Your task to perform on an android device: open app "Spotify: Music and Podcasts" Image 0: 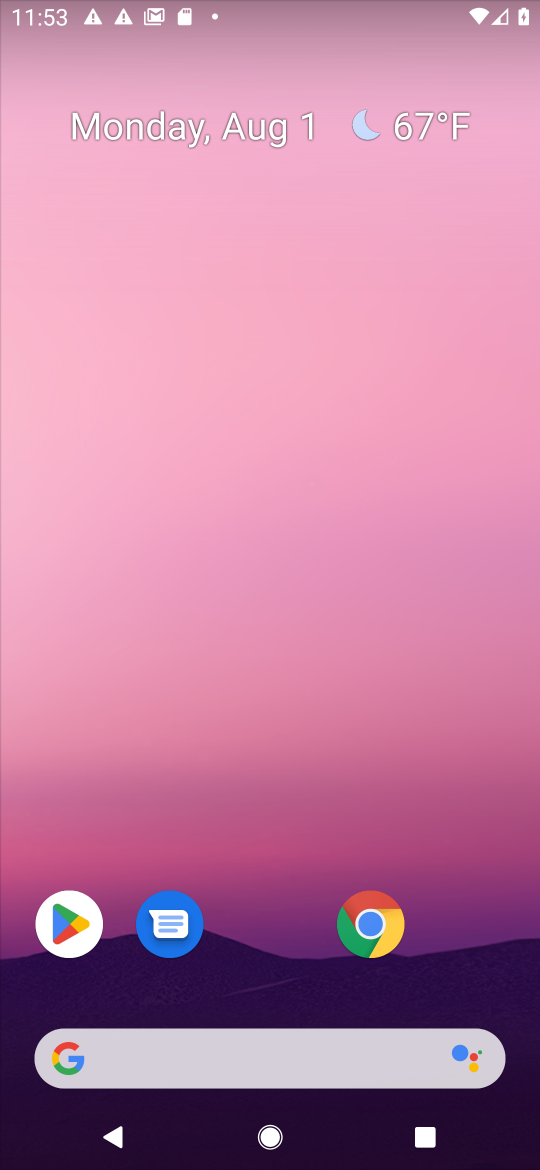
Step 0: click (66, 919)
Your task to perform on an android device: open app "Spotify: Music and Podcasts" Image 1: 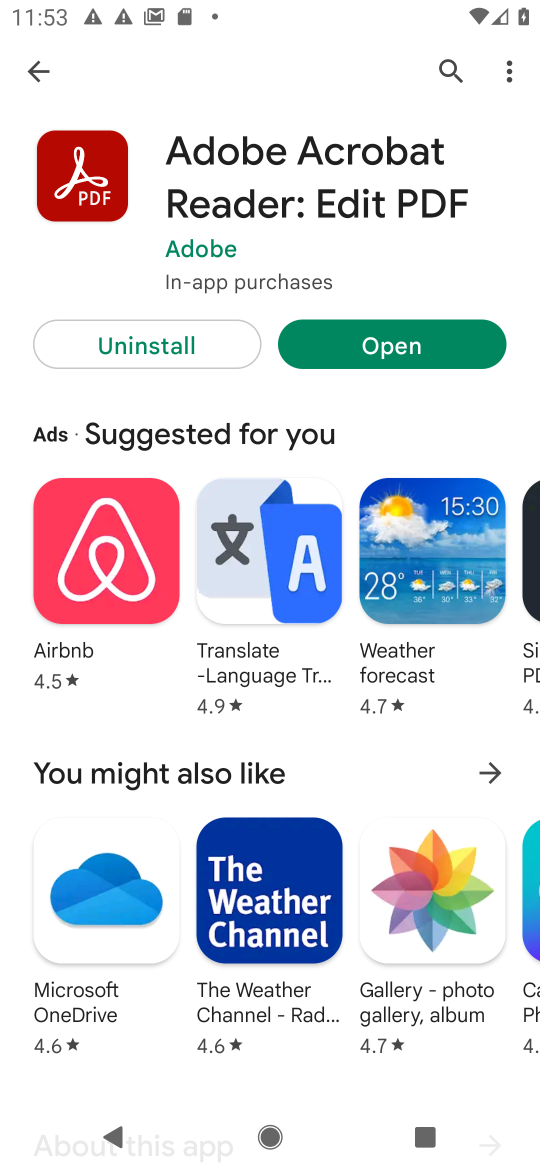
Step 1: click (442, 70)
Your task to perform on an android device: open app "Spotify: Music and Podcasts" Image 2: 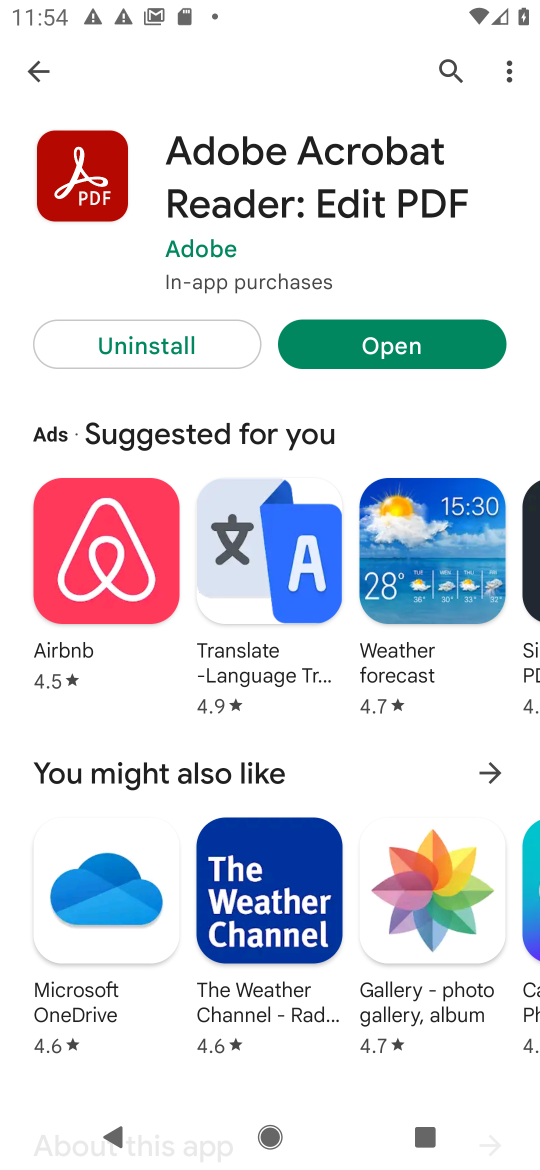
Step 2: click (439, 60)
Your task to perform on an android device: open app "Spotify: Music and Podcasts" Image 3: 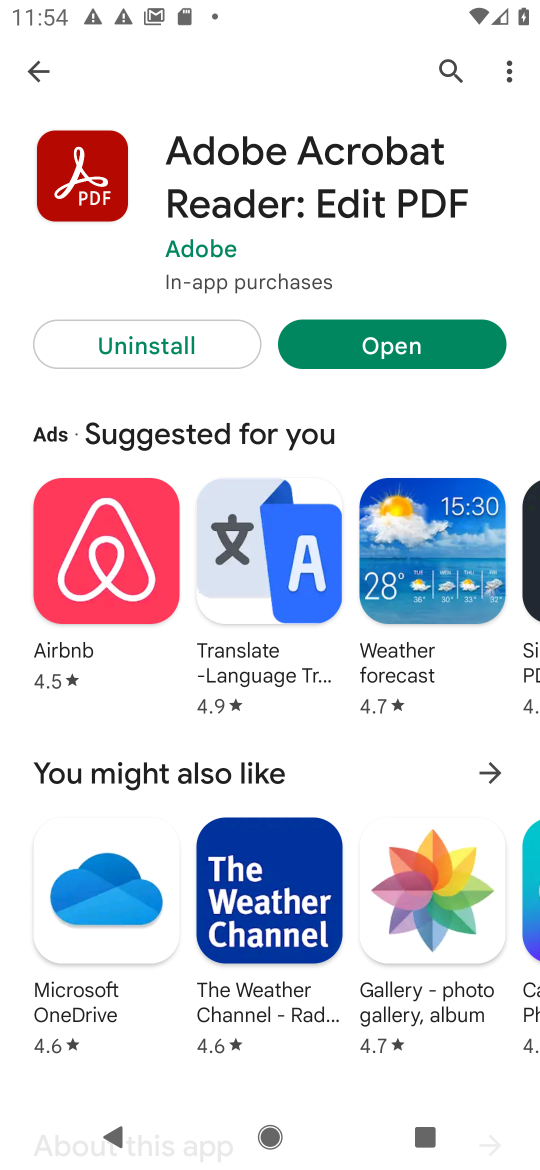
Step 3: click (437, 64)
Your task to perform on an android device: open app "Spotify: Music and Podcasts" Image 4: 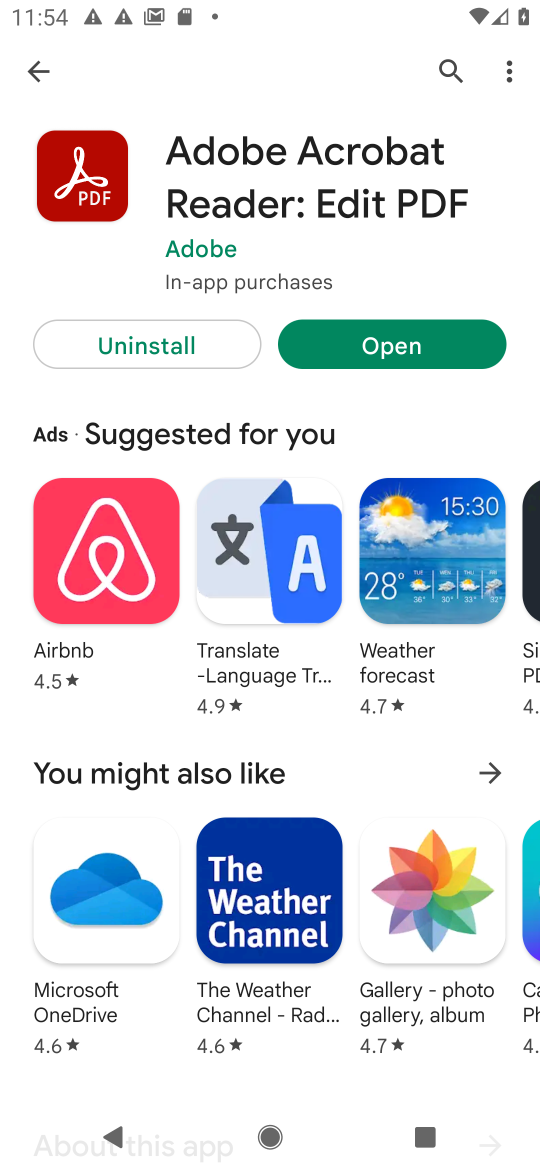
Step 4: click (446, 72)
Your task to perform on an android device: open app "Spotify: Music and Podcasts" Image 5: 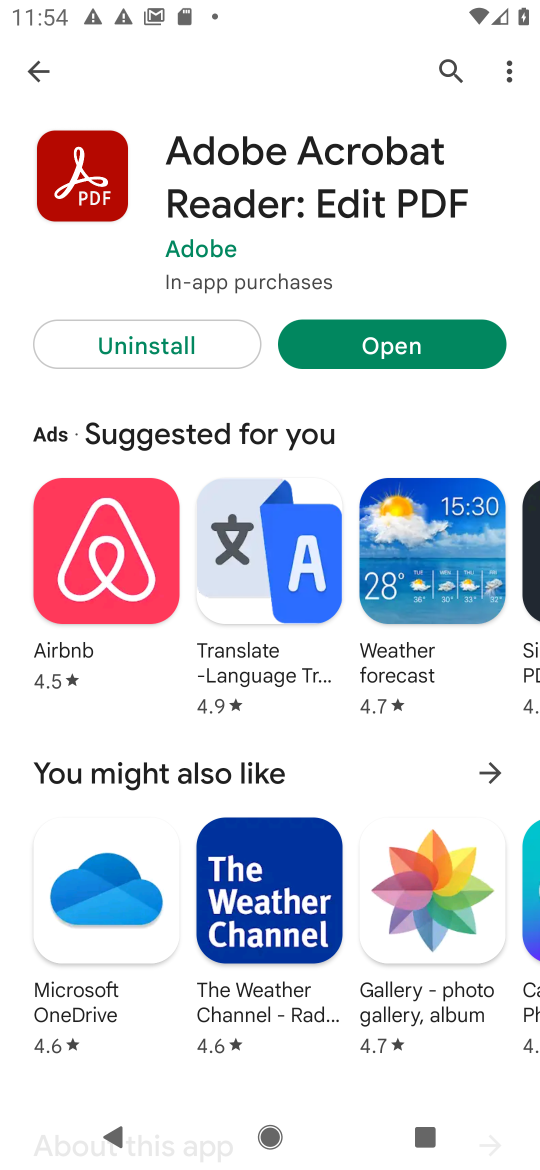
Step 5: click (445, 66)
Your task to perform on an android device: open app "Spotify: Music and Podcasts" Image 6: 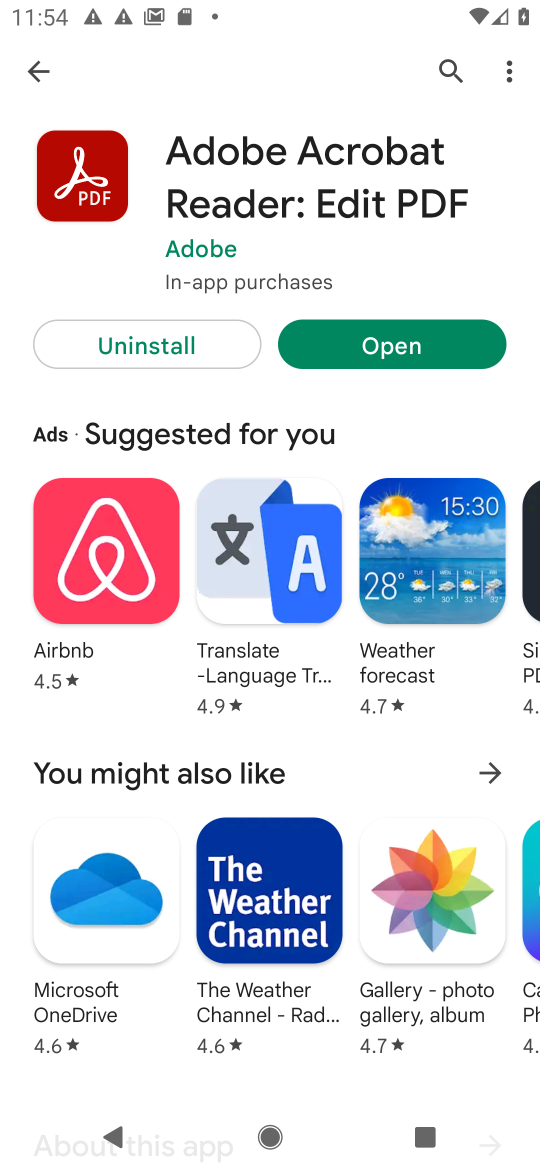
Step 6: click (441, 60)
Your task to perform on an android device: open app "Spotify: Music and Podcasts" Image 7: 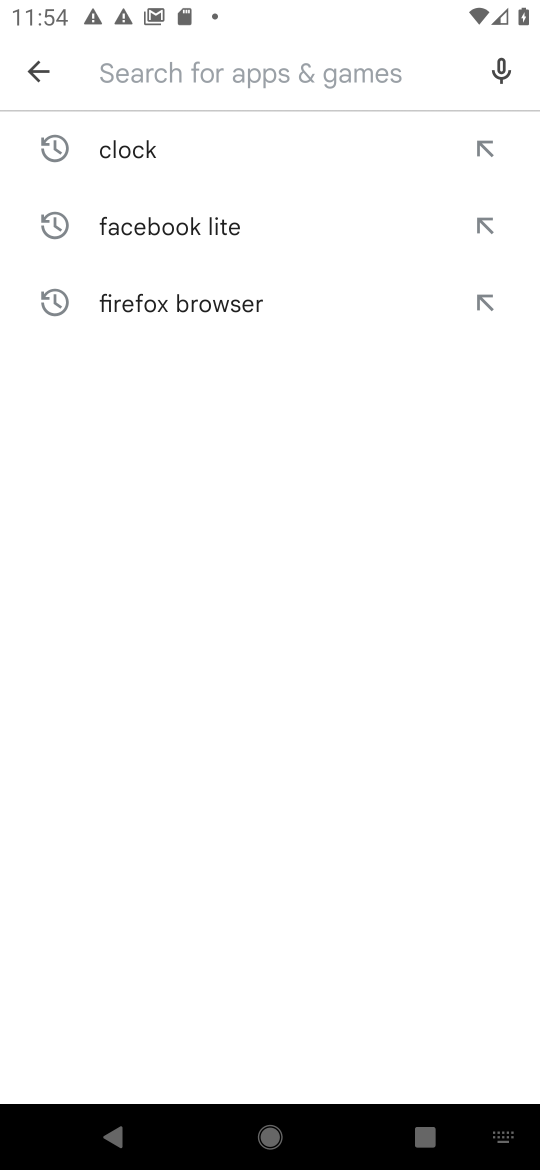
Step 7: type "Spotify: Music and Podcasts"
Your task to perform on an android device: open app "Spotify: Music and Podcasts" Image 8: 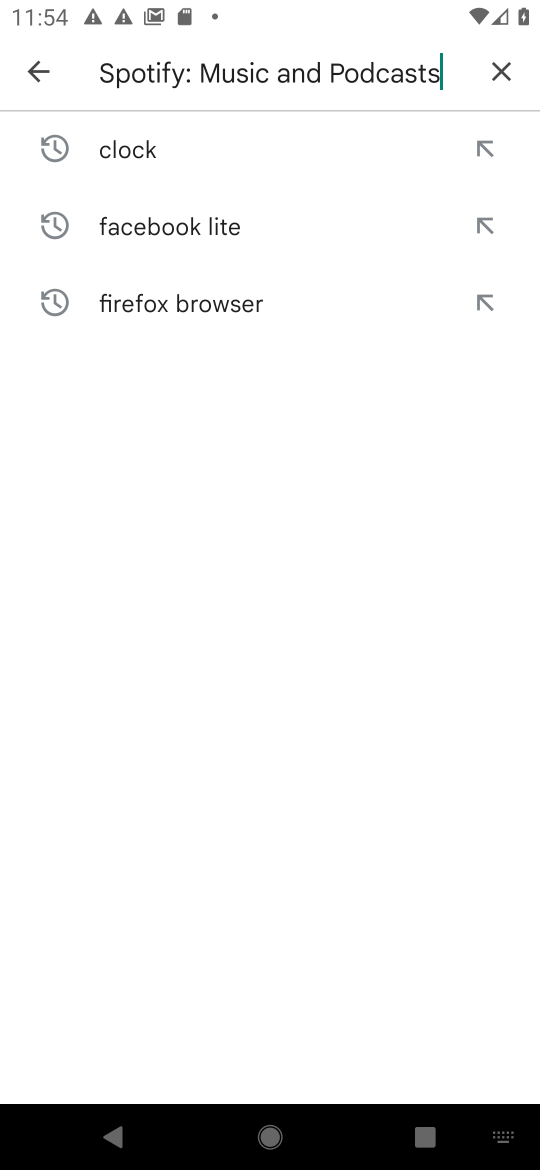
Step 8: type ""
Your task to perform on an android device: open app "Spotify: Music and Podcasts" Image 9: 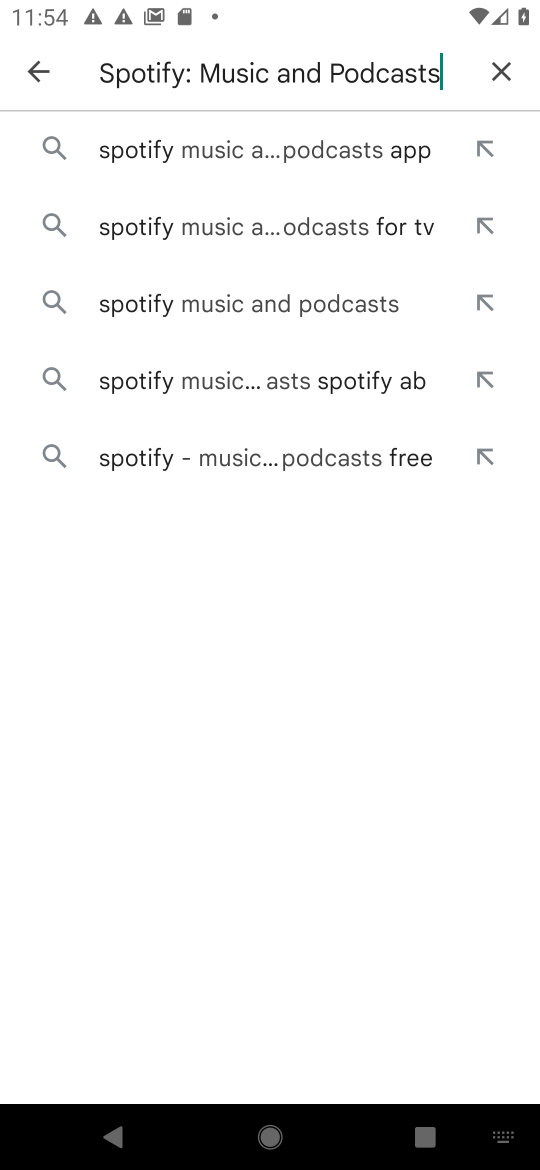
Step 9: click (185, 157)
Your task to perform on an android device: open app "Spotify: Music and Podcasts" Image 10: 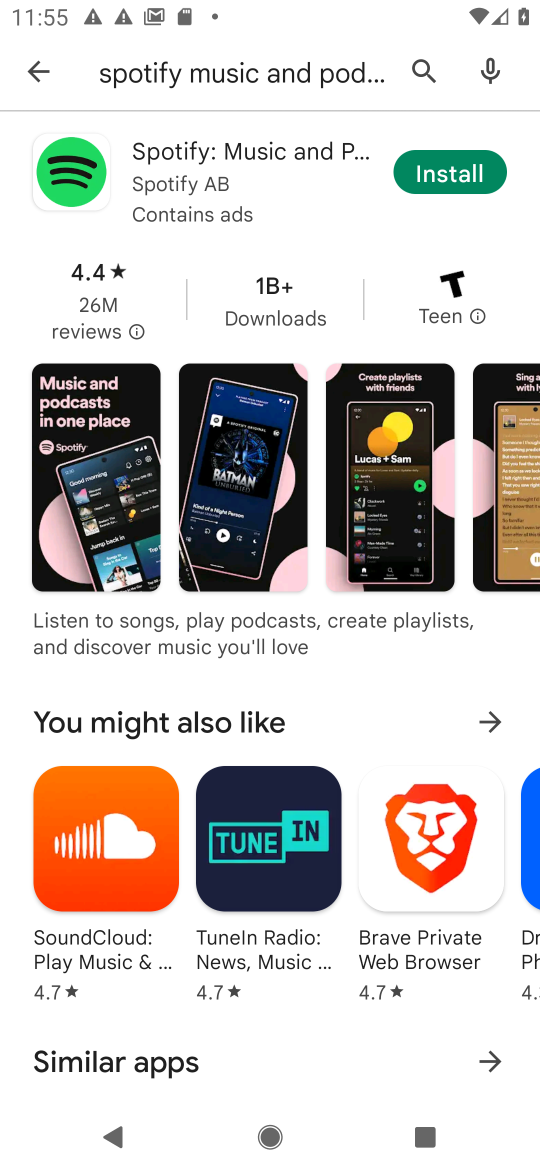
Step 10: task complete